Your task to perform on an android device: Open wifi settings Image 0: 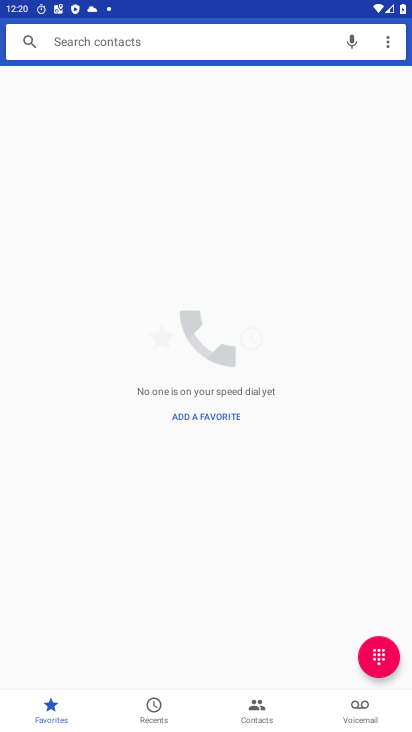
Step 0: press home button
Your task to perform on an android device: Open wifi settings Image 1: 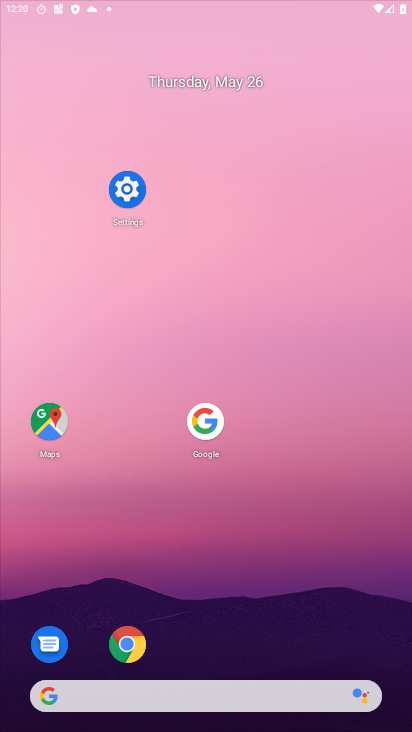
Step 1: drag from (225, 627) to (237, 25)
Your task to perform on an android device: Open wifi settings Image 2: 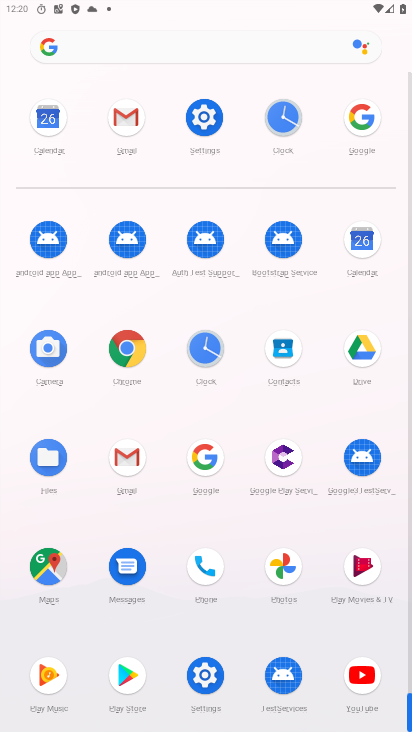
Step 2: click (204, 115)
Your task to perform on an android device: Open wifi settings Image 3: 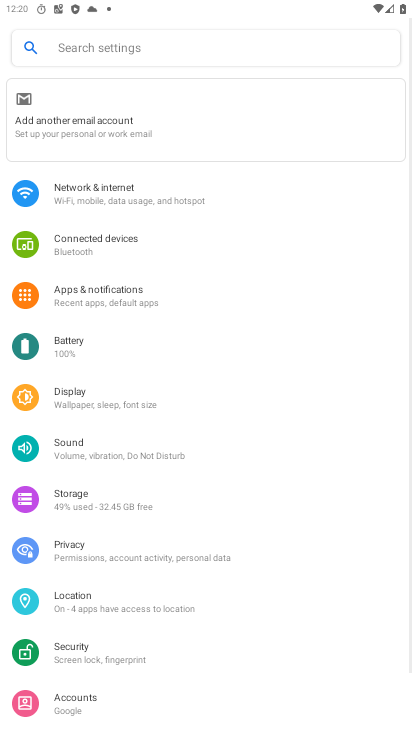
Step 3: click (123, 219)
Your task to perform on an android device: Open wifi settings Image 4: 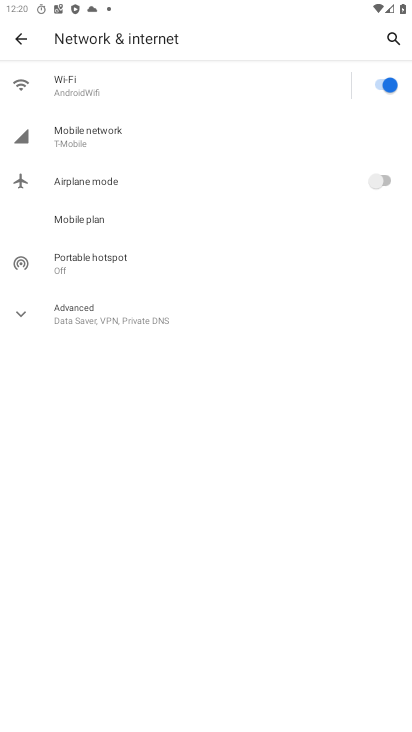
Step 4: click (159, 84)
Your task to perform on an android device: Open wifi settings Image 5: 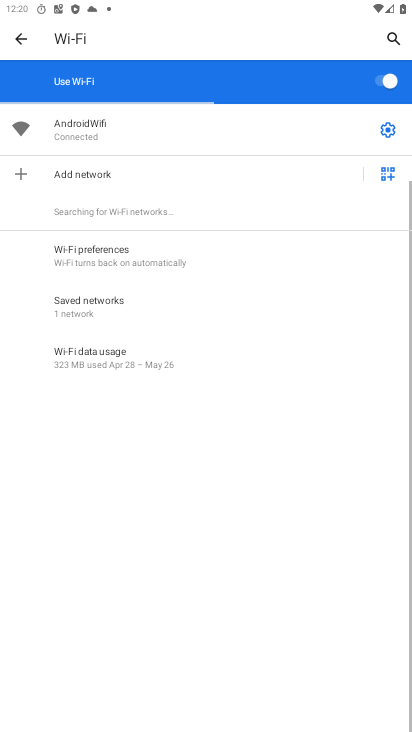
Step 5: click (190, 142)
Your task to perform on an android device: Open wifi settings Image 6: 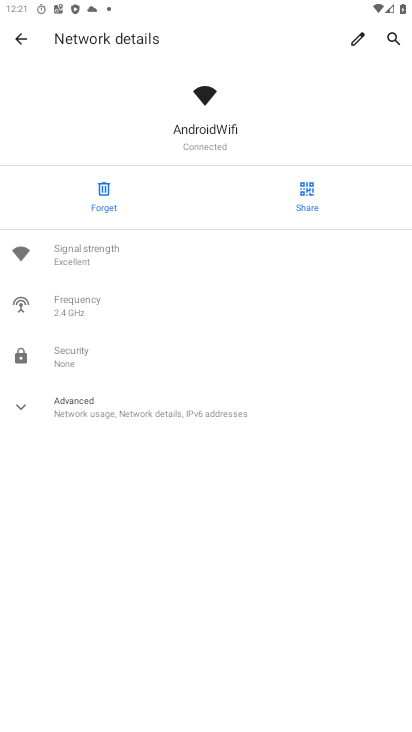
Step 6: task complete